Your task to perform on an android device: turn off location history Image 0: 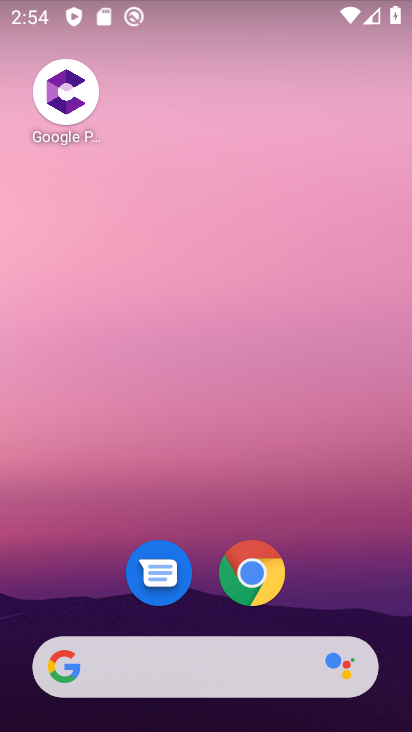
Step 0: drag from (319, 614) to (279, 70)
Your task to perform on an android device: turn off location history Image 1: 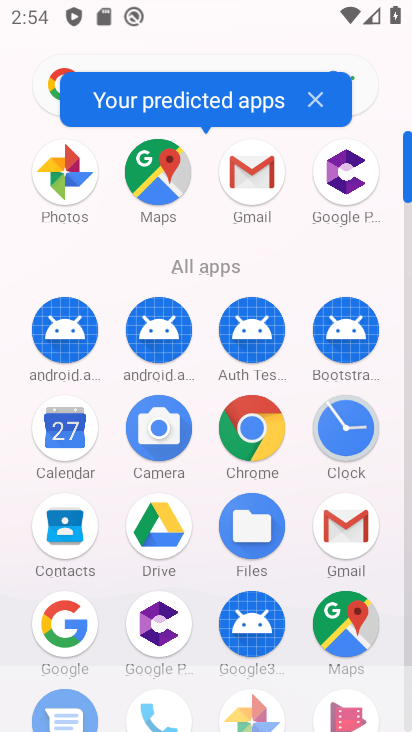
Step 1: drag from (194, 541) to (245, 121)
Your task to perform on an android device: turn off location history Image 2: 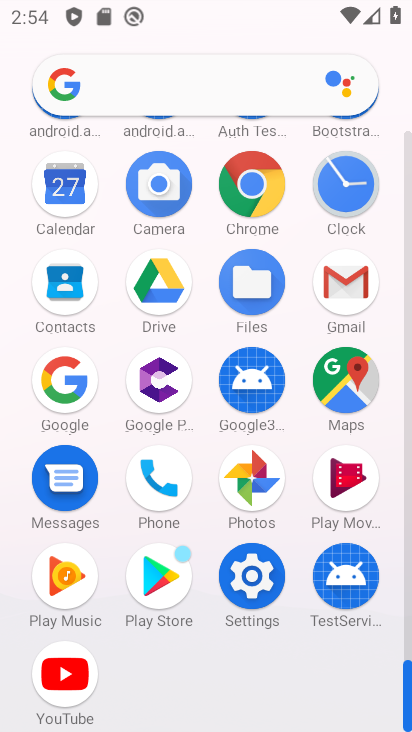
Step 2: click (241, 569)
Your task to perform on an android device: turn off location history Image 3: 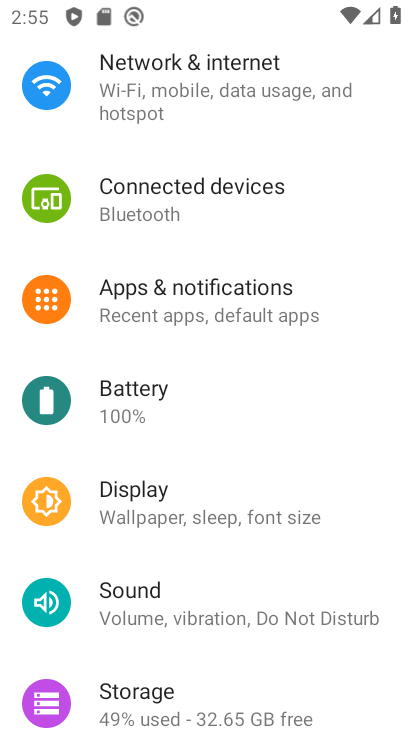
Step 3: drag from (160, 624) to (219, 253)
Your task to perform on an android device: turn off location history Image 4: 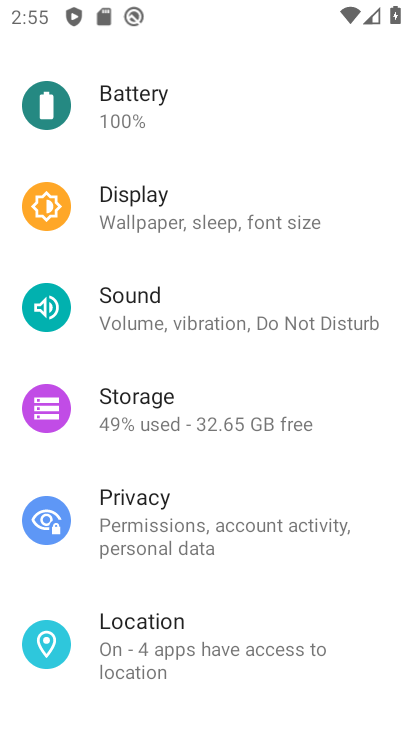
Step 4: click (184, 645)
Your task to perform on an android device: turn off location history Image 5: 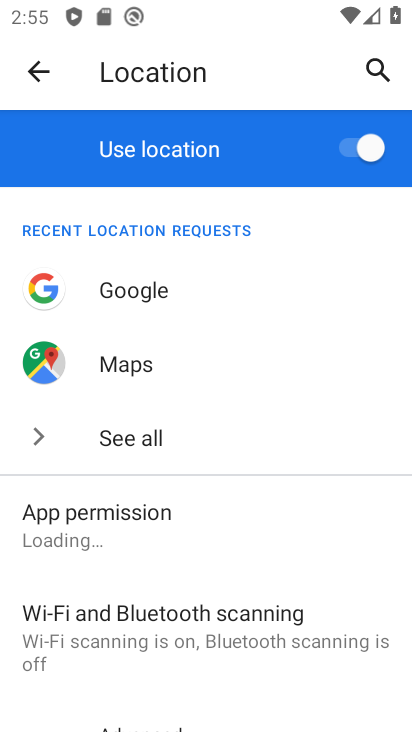
Step 5: drag from (154, 676) to (154, 230)
Your task to perform on an android device: turn off location history Image 6: 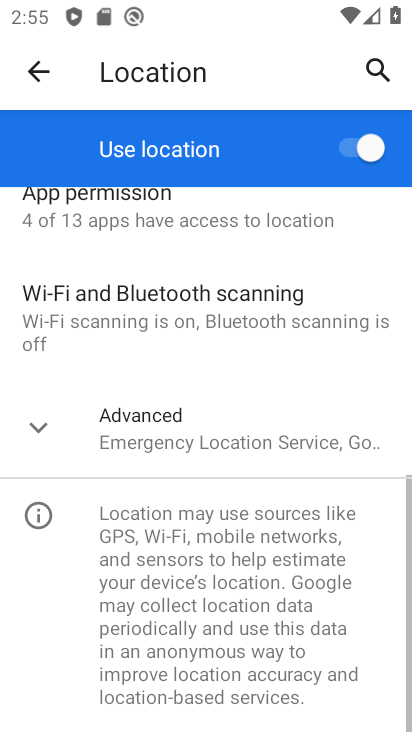
Step 6: click (170, 402)
Your task to perform on an android device: turn off location history Image 7: 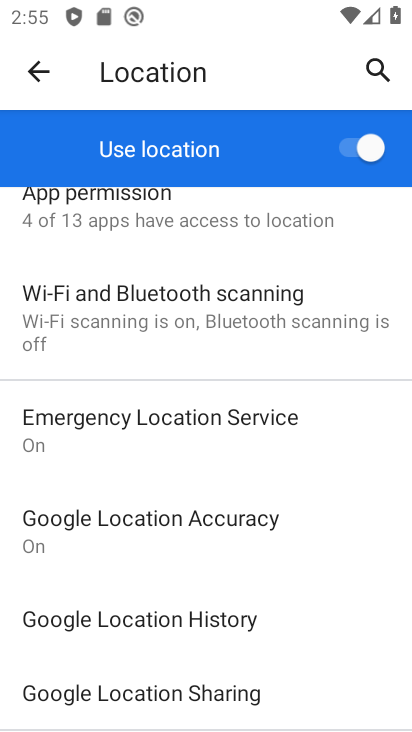
Step 7: click (152, 609)
Your task to perform on an android device: turn off location history Image 8: 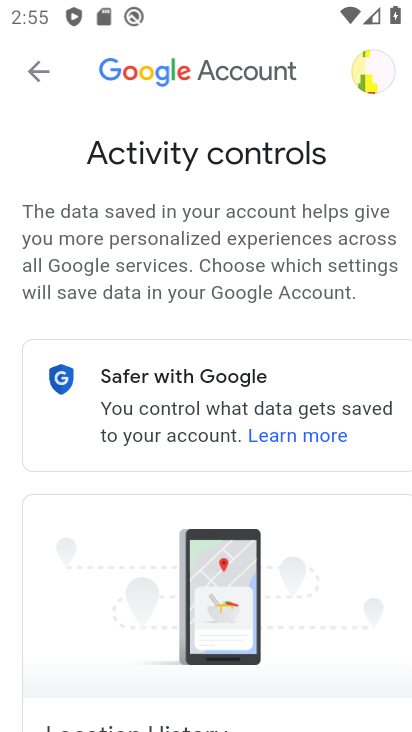
Step 8: drag from (304, 571) to (285, 81)
Your task to perform on an android device: turn off location history Image 9: 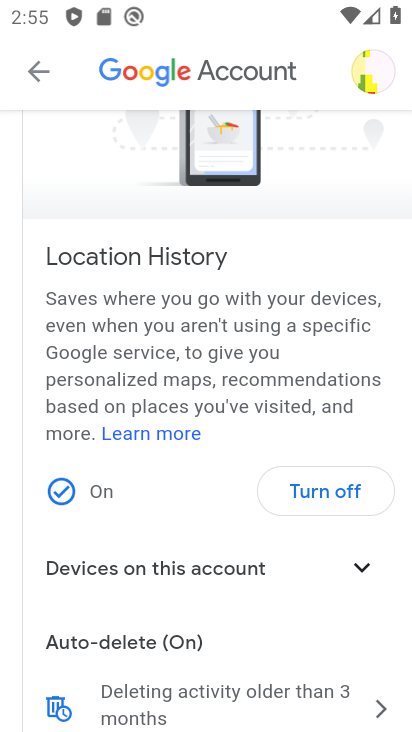
Step 9: click (349, 489)
Your task to perform on an android device: turn off location history Image 10: 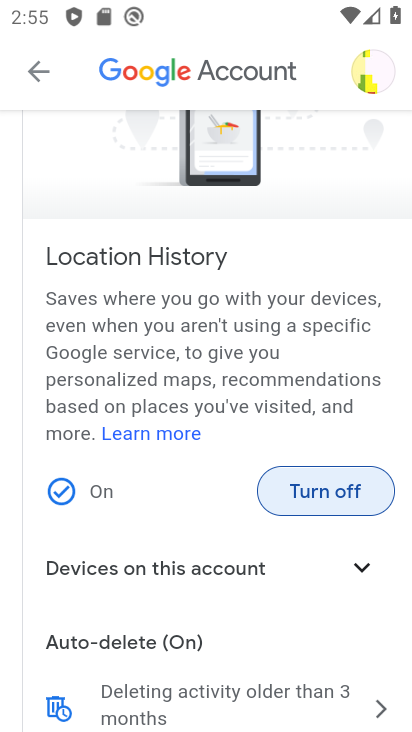
Step 10: click (343, 495)
Your task to perform on an android device: turn off location history Image 11: 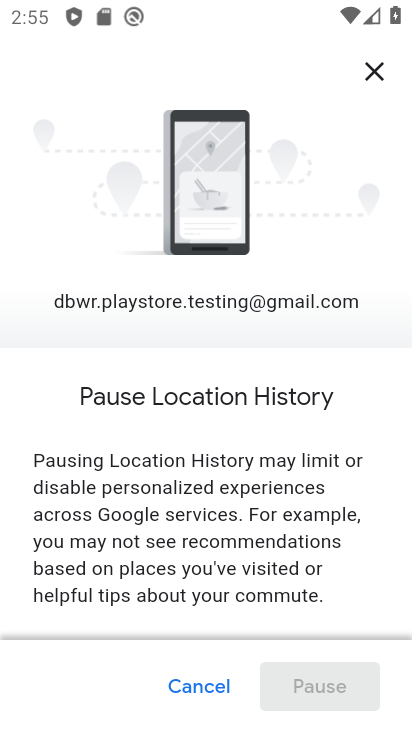
Step 11: drag from (248, 543) to (231, 114)
Your task to perform on an android device: turn off location history Image 12: 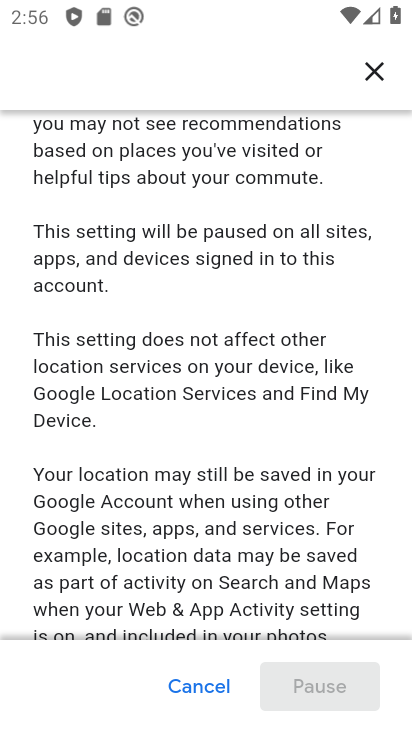
Step 12: drag from (264, 573) to (251, 46)
Your task to perform on an android device: turn off location history Image 13: 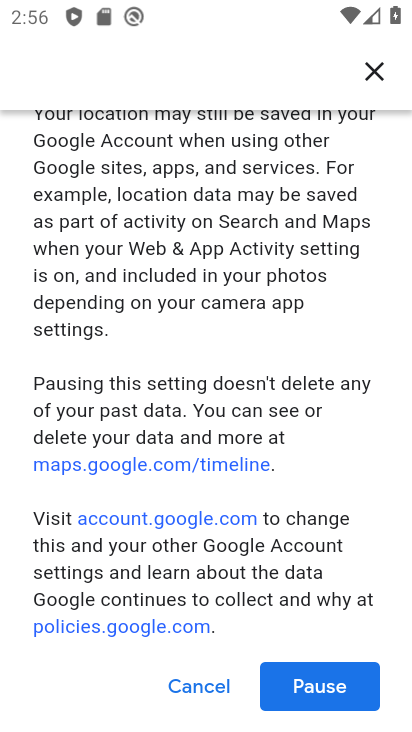
Step 13: click (332, 685)
Your task to perform on an android device: turn off location history Image 14: 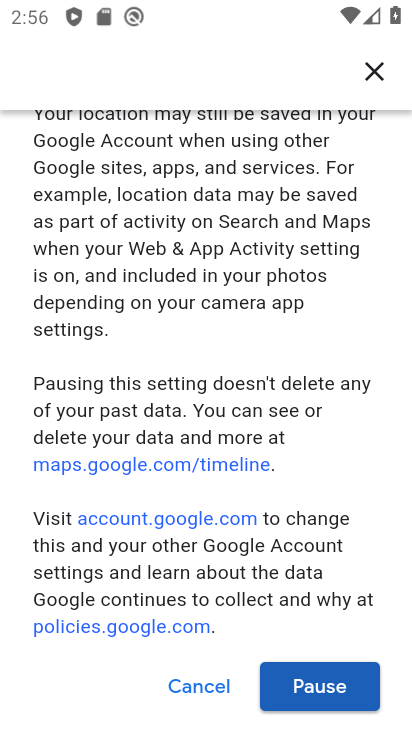
Step 14: click (309, 681)
Your task to perform on an android device: turn off location history Image 15: 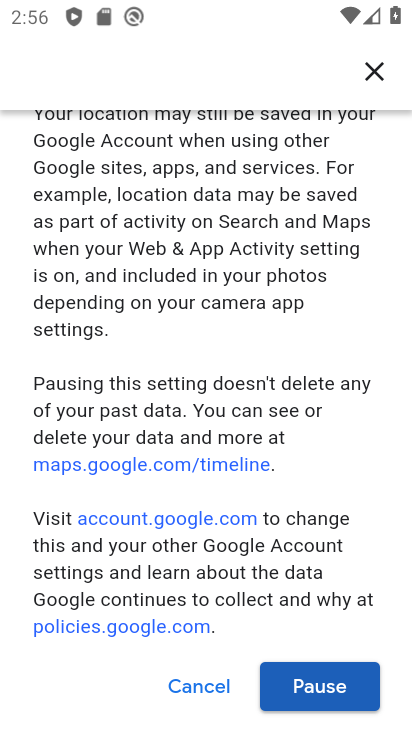
Step 15: click (293, 689)
Your task to perform on an android device: turn off location history Image 16: 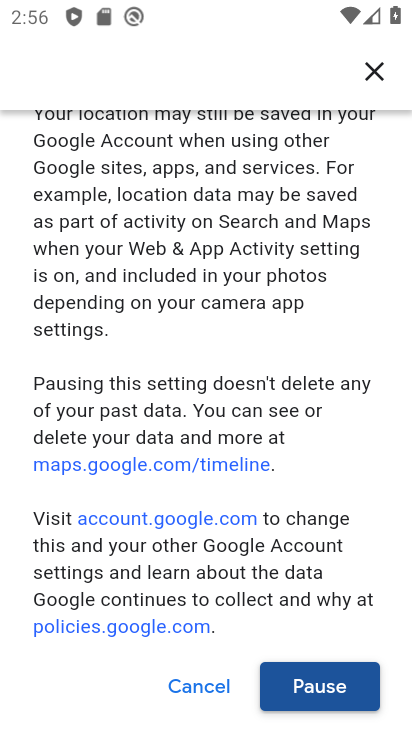
Step 16: click (359, 692)
Your task to perform on an android device: turn off location history Image 17: 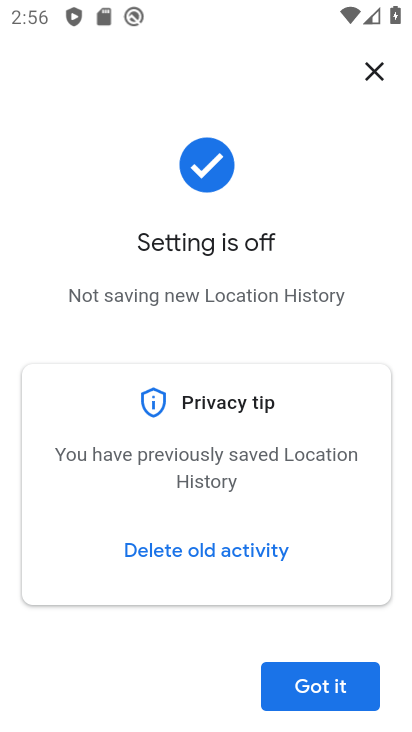
Step 17: task complete